Your task to perform on an android device: turn on data saver in the chrome app Image 0: 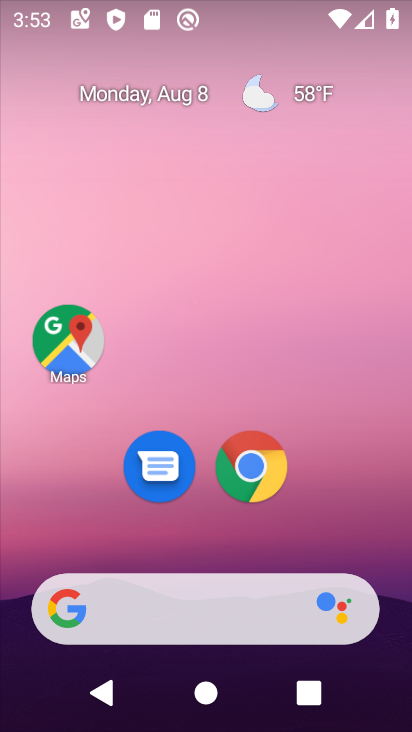
Step 0: drag from (178, 559) to (222, 212)
Your task to perform on an android device: turn on data saver in the chrome app Image 1: 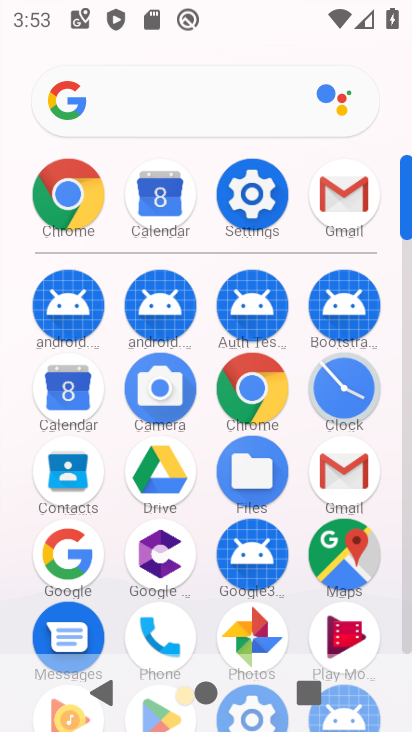
Step 1: click (71, 199)
Your task to perform on an android device: turn on data saver in the chrome app Image 2: 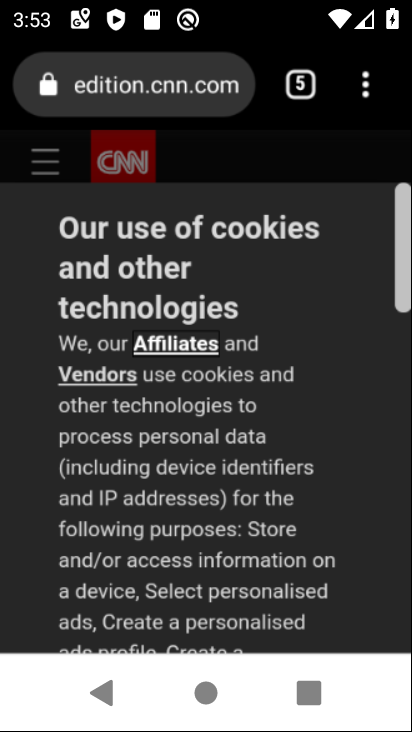
Step 2: click (363, 78)
Your task to perform on an android device: turn on data saver in the chrome app Image 3: 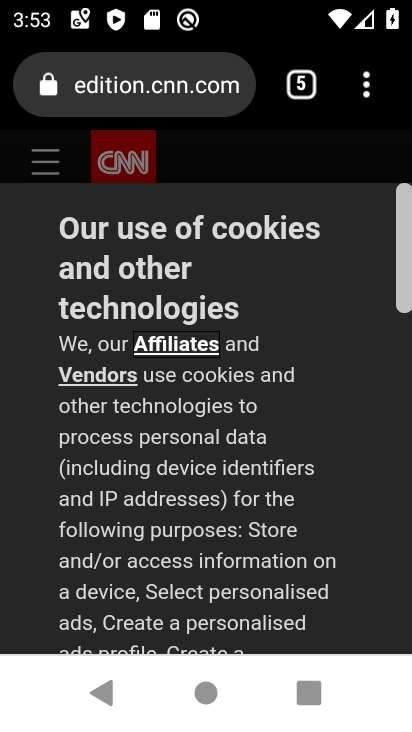
Step 3: click (363, 78)
Your task to perform on an android device: turn on data saver in the chrome app Image 4: 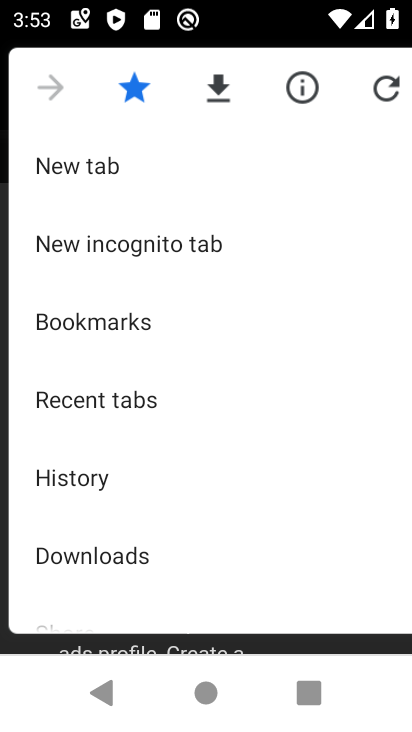
Step 4: drag from (123, 577) to (180, 255)
Your task to perform on an android device: turn on data saver in the chrome app Image 5: 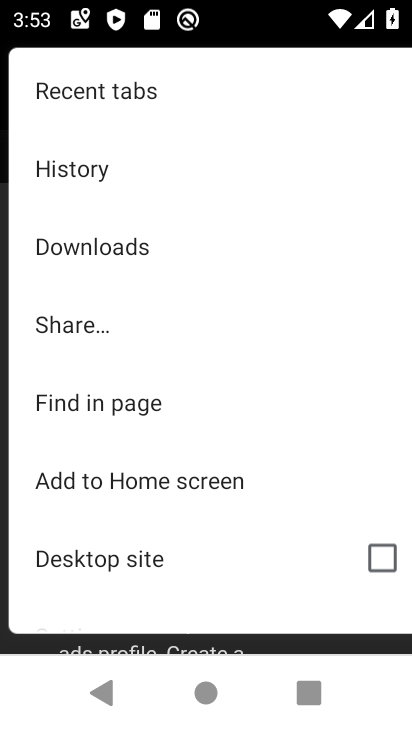
Step 5: drag from (111, 522) to (175, 259)
Your task to perform on an android device: turn on data saver in the chrome app Image 6: 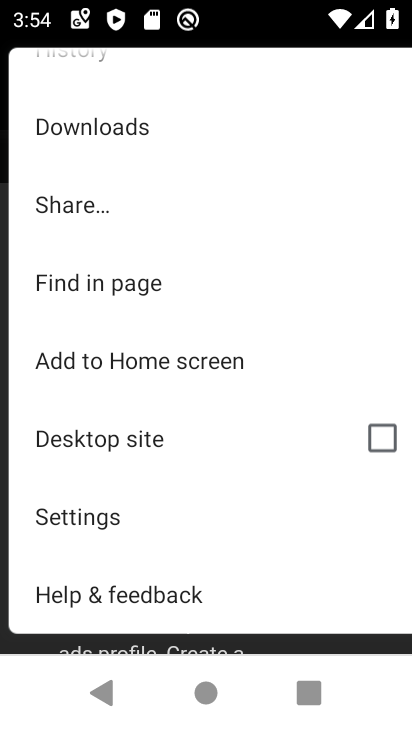
Step 6: drag from (56, 547) to (70, 514)
Your task to perform on an android device: turn on data saver in the chrome app Image 7: 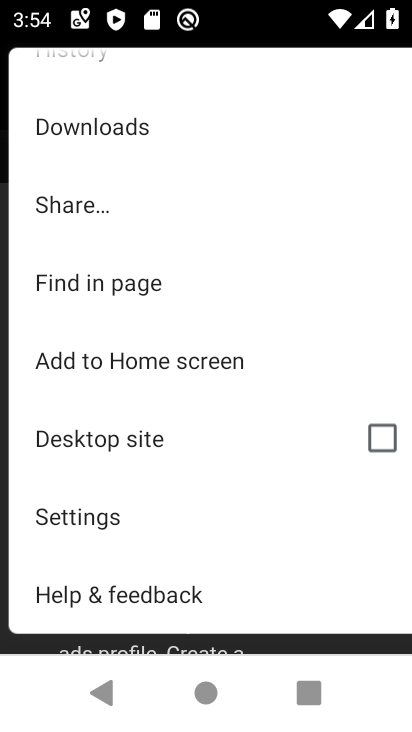
Step 7: click (157, 525)
Your task to perform on an android device: turn on data saver in the chrome app Image 8: 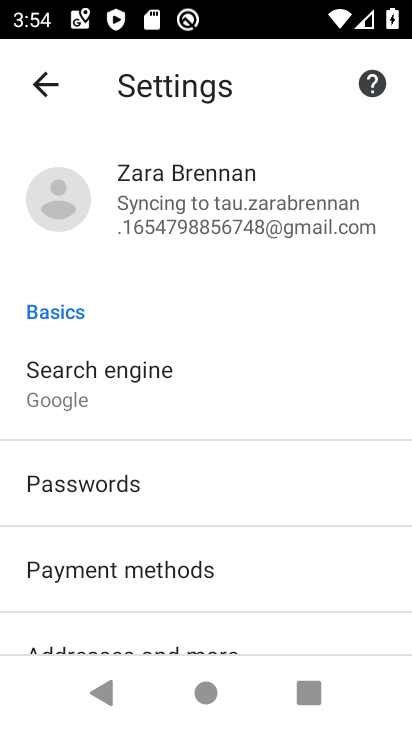
Step 8: drag from (193, 543) to (204, 249)
Your task to perform on an android device: turn on data saver in the chrome app Image 9: 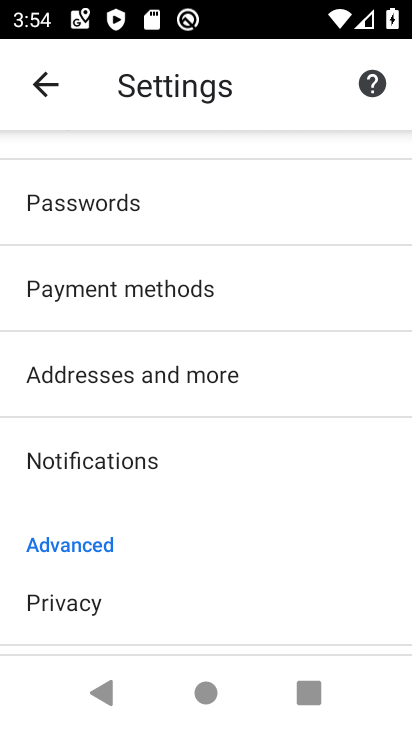
Step 9: drag from (143, 609) to (209, 237)
Your task to perform on an android device: turn on data saver in the chrome app Image 10: 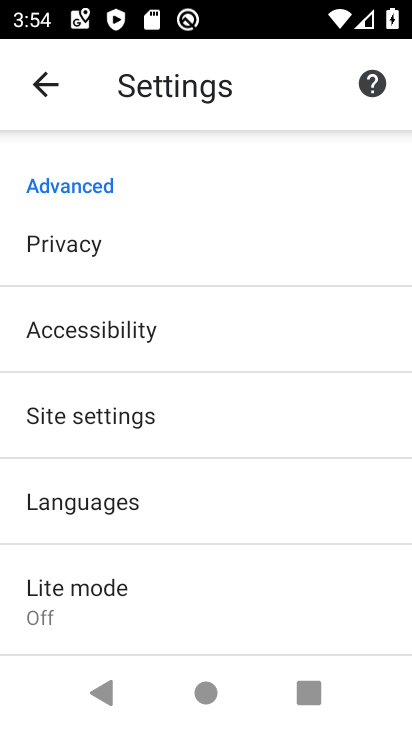
Step 10: click (125, 595)
Your task to perform on an android device: turn on data saver in the chrome app Image 11: 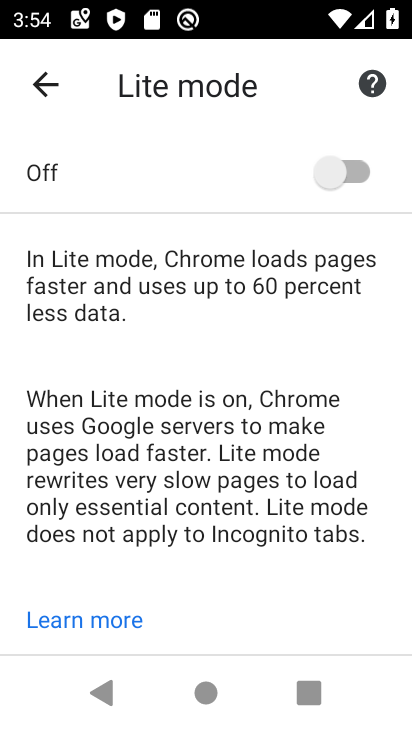
Step 11: click (342, 167)
Your task to perform on an android device: turn on data saver in the chrome app Image 12: 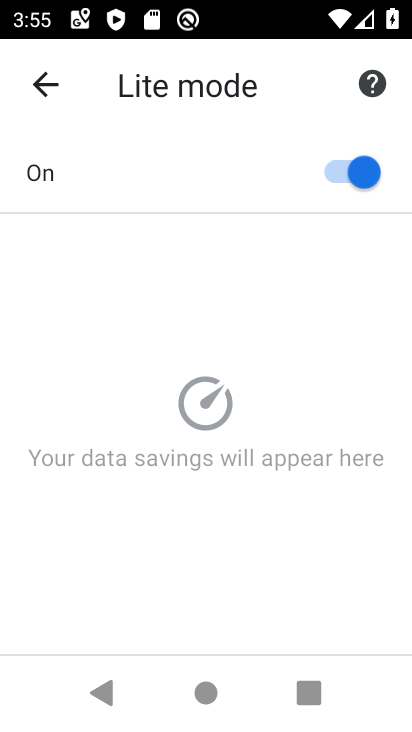
Step 12: task complete